Your task to perform on an android device: snooze an email in the gmail app Image 0: 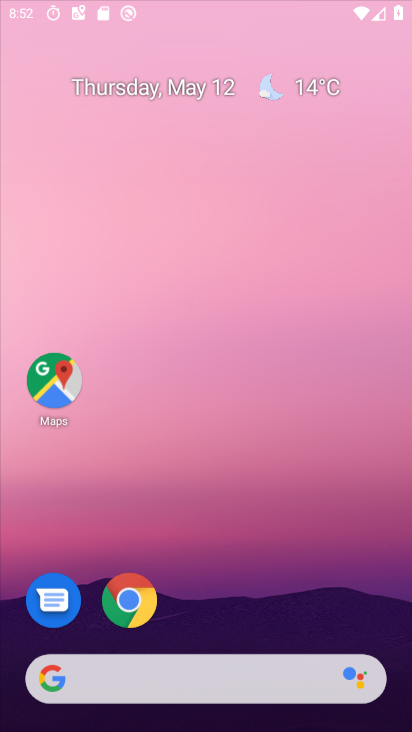
Step 0: click (5, 33)
Your task to perform on an android device: snooze an email in the gmail app Image 1: 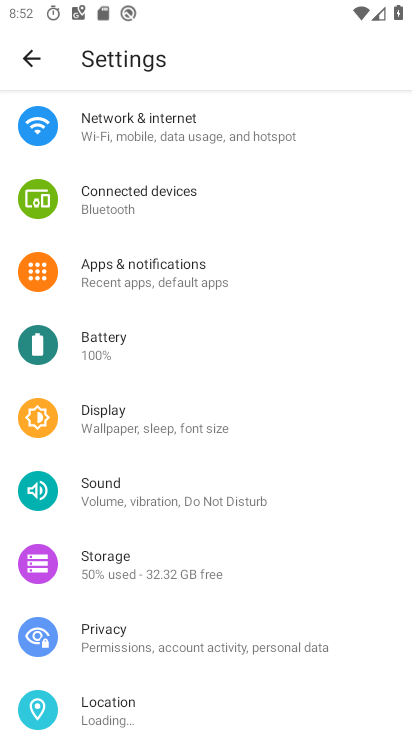
Step 1: press home button
Your task to perform on an android device: snooze an email in the gmail app Image 2: 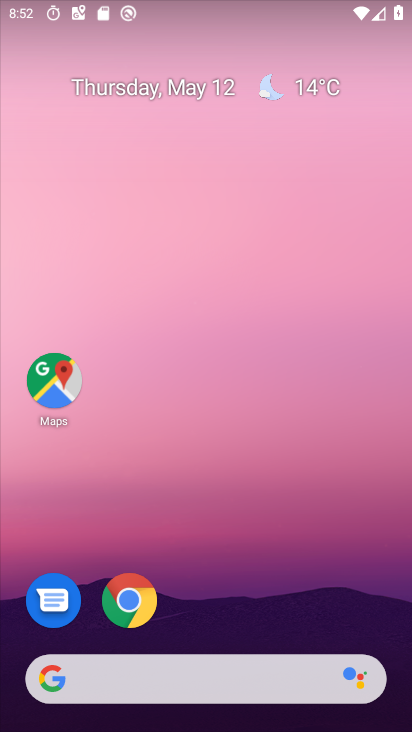
Step 2: drag from (236, 629) to (277, 173)
Your task to perform on an android device: snooze an email in the gmail app Image 3: 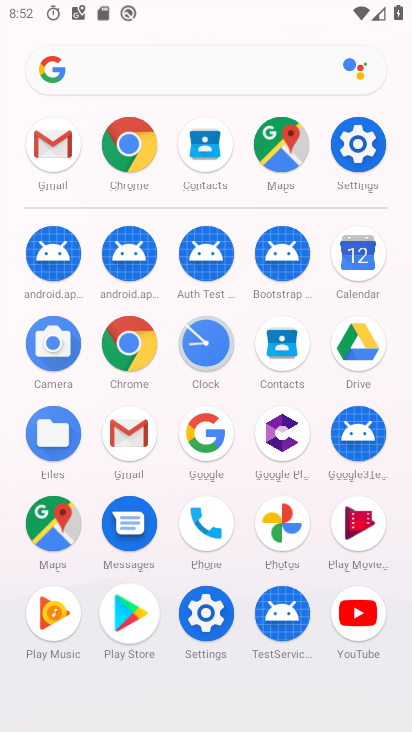
Step 3: click (129, 427)
Your task to perform on an android device: snooze an email in the gmail app Image 4: 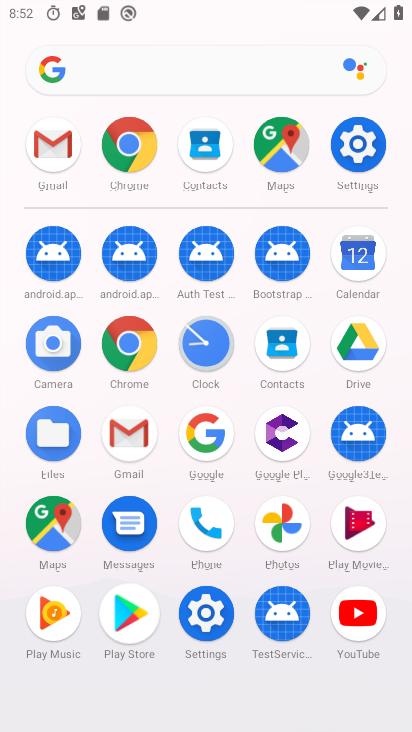
Step 4: click (129, 427)
Your task to perform on an android device: snooze an email in the gmail app Image 5: 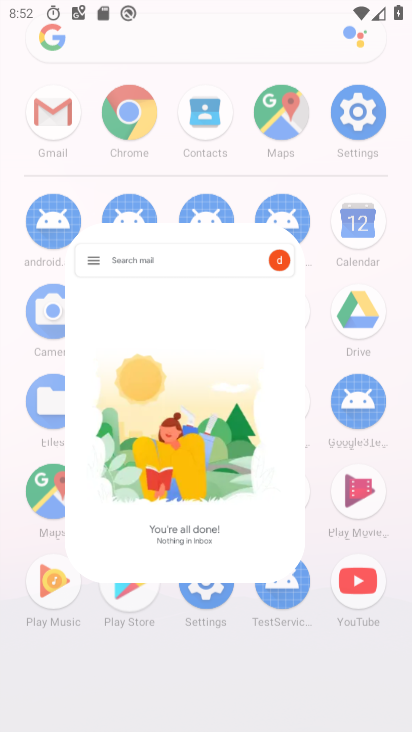
Step 5: click (129, 427)
Your task to perform on an android device: snooze an email in the gmail app Image 6: 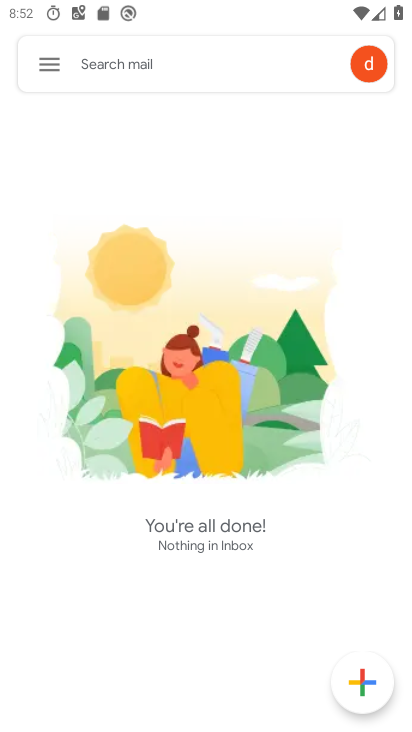
Step 6: click (55, 60)
Your task to perform on an android device: snooze an email in the gmail app Image 7: 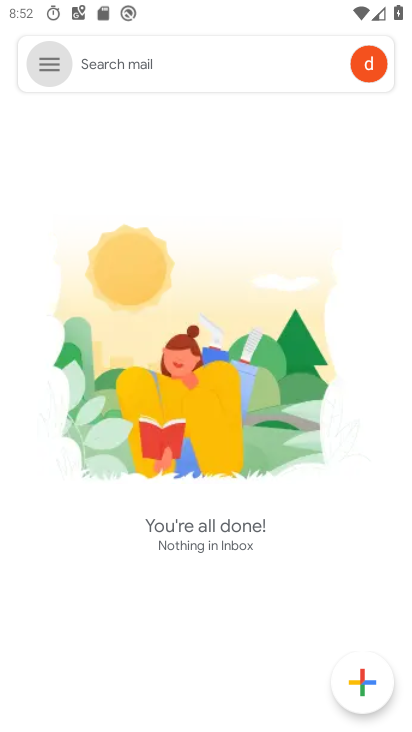
Step 7: click (51, 68)
Your task to perform on an android device: snooze an email in the gmail app Image 8: 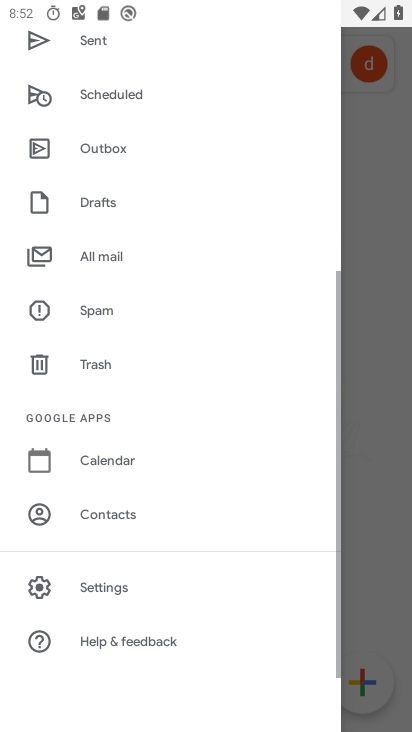
Step 8: click (51, 68)
Your task to perform on an android device: snooze an email in the gmail app Image 9: 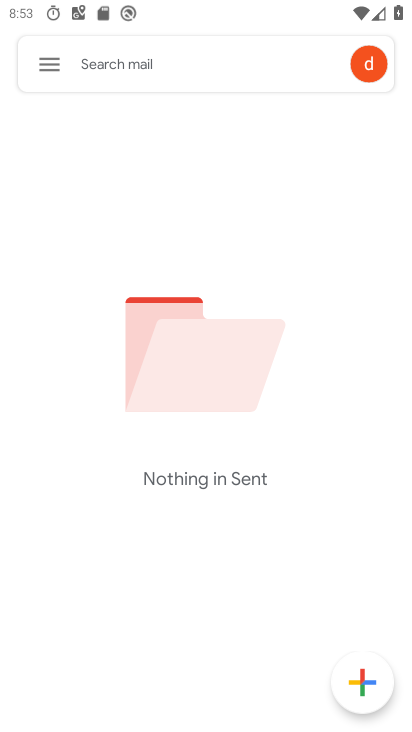
Step 9: click (42, 69)
Your task to perform on an android device: snooze an email in the gmail app Image 10: 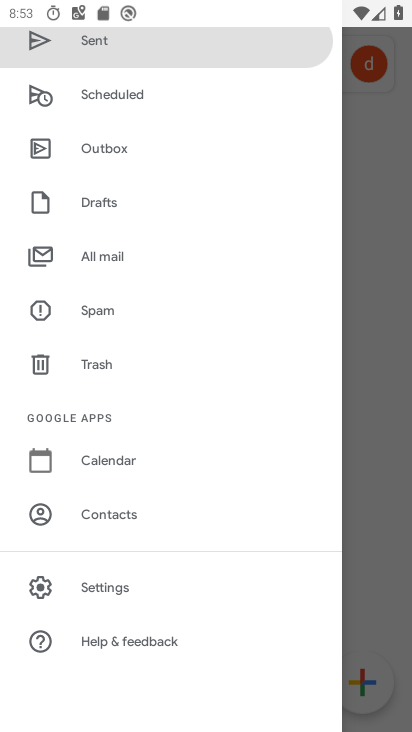
Step 10: click (110, 182)
Your task to perform on an android device: snooze an email in the gmail app Image 11: 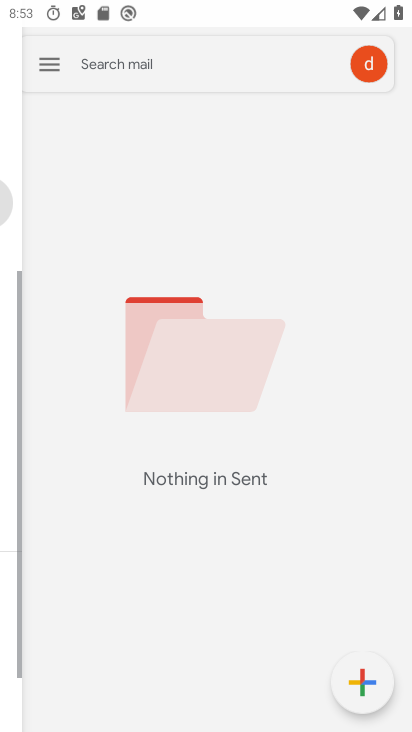
Step 11: drag from (112, 190) to (115, 415)
Your task to perform on an android device: snooze an email in the gmail app Image 12: 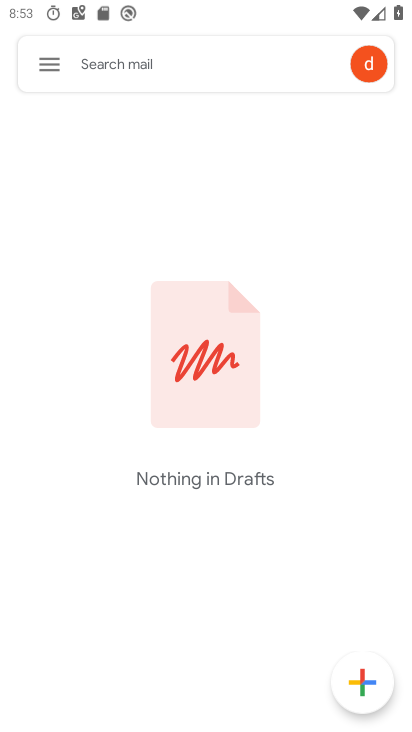
Step 12: click (51, 65)
Your task to perform on an android device: snooze an email in the gmail app Image 13: 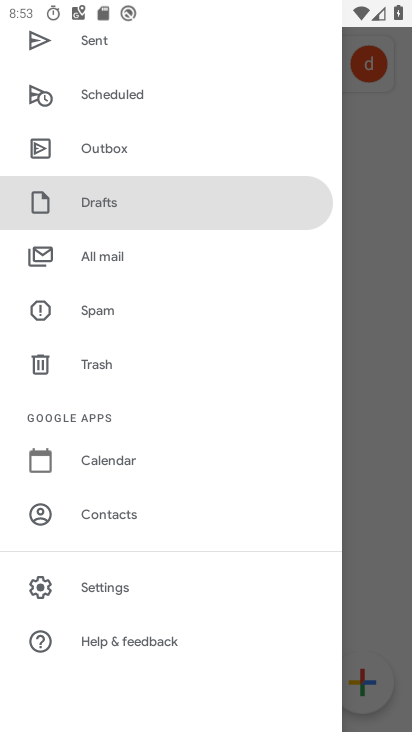
Step 13: drag from (134, 200) to (134, 613)
Your task to perform on an android device: snooze an email in the gmail app Image 14: 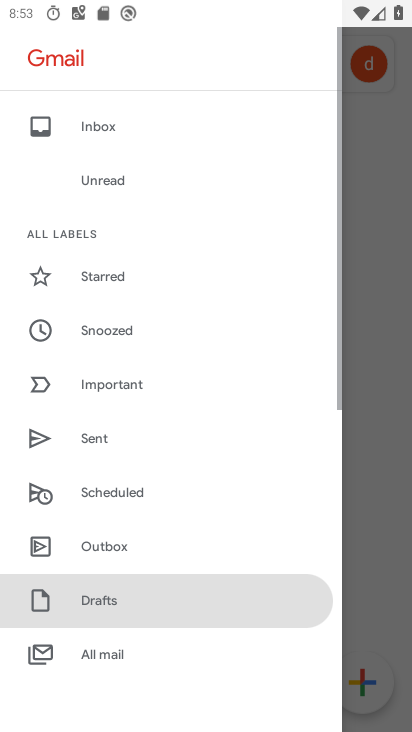
Step 14: drag from (165, 179) to (176, 460)
Your task to perform on an android device: snooze an email in the gmail app Image 15: 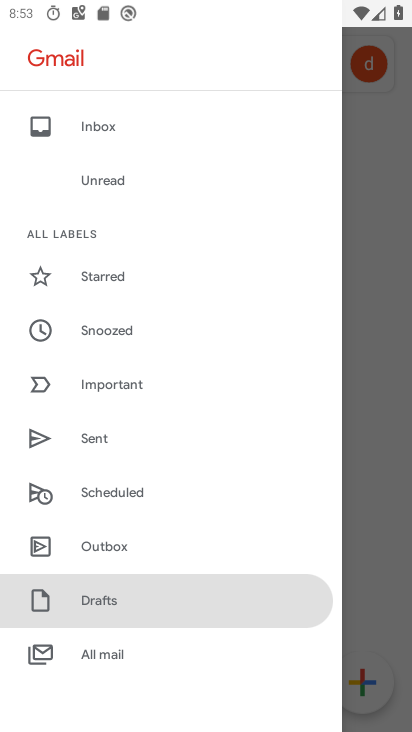
Step 15: click (129, 319)
Your task to perform on an android device: snooze an email in the gmail app Image 16: 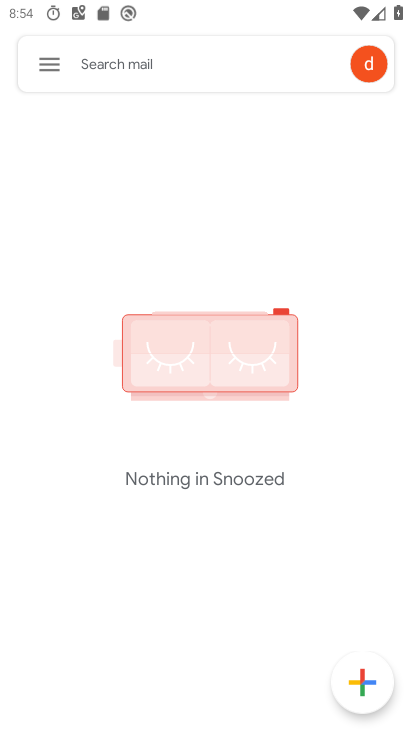
Step 16: task complete